Your task to perform on an android device: Go to wifi settings Image 0: 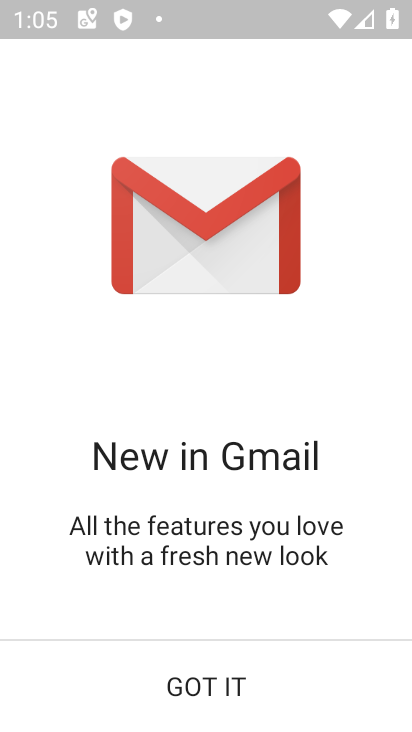
Step 0: click (227, 676)
Your task to perform on an android device: Go to wifi settings Image 1: 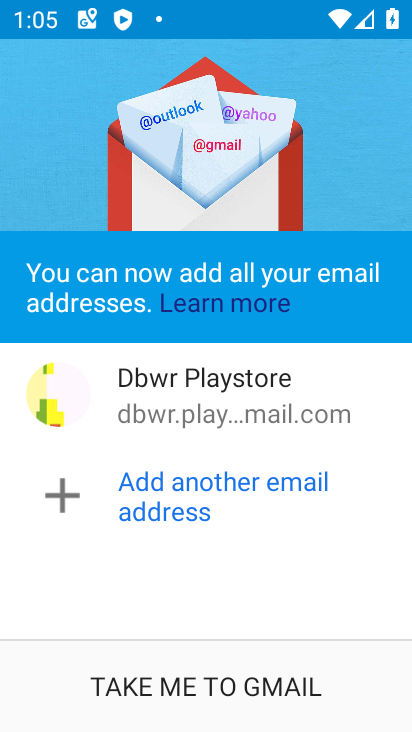
Step 1: click (228, 677)
Your task to perform on an android device: Go to wifi settings Image 2: 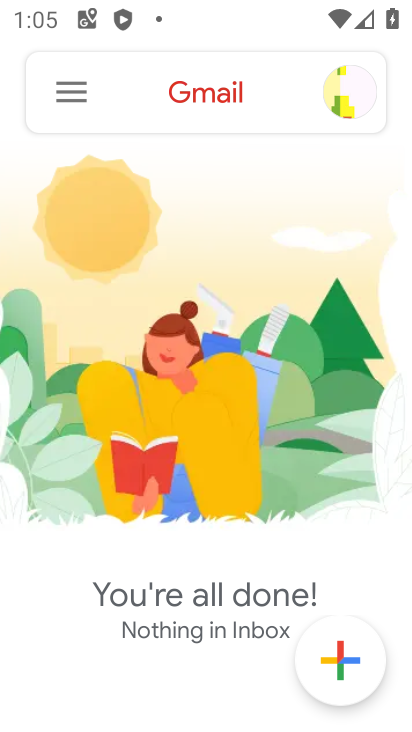
Step 2: press home button
Your task to perform on an android device: Go to wifi settings Image 3: 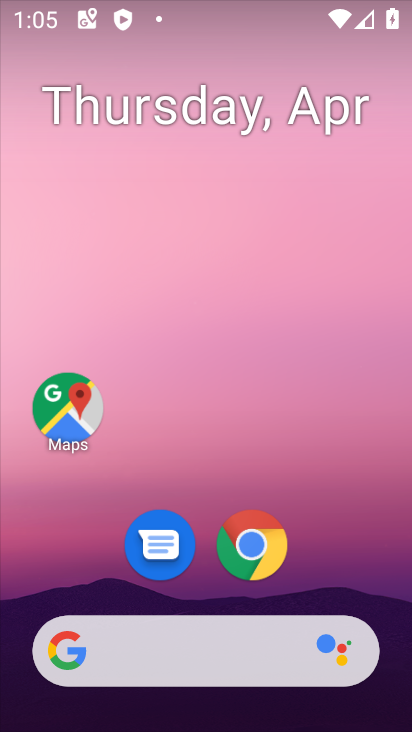
Step 3: drag from (196, 633) to (279, 119)
Your task to perform on an android device: Go to wifi settings Image 4: 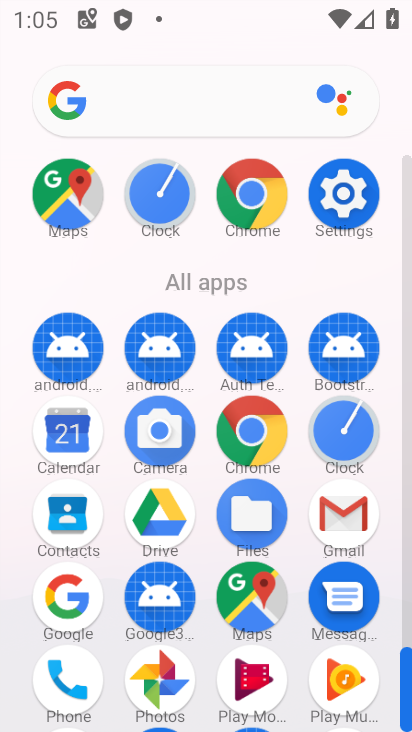
Step 4: click (348, 200)
Your task to perform on an android device: Go to wifi settings Image 5: 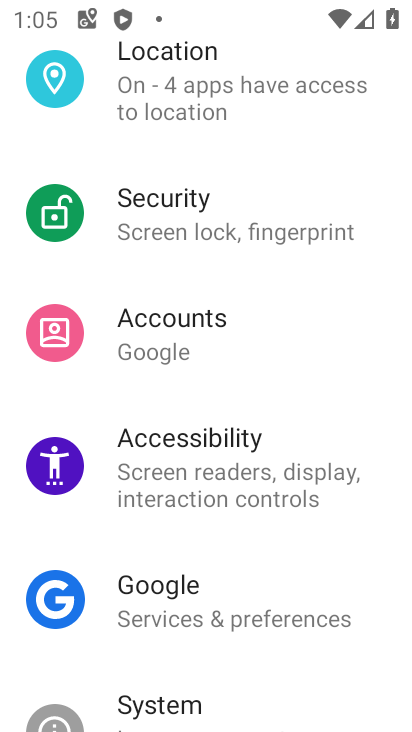
Step 5: drag from (283, 115) to (275, 585)
Your task to perform on an android device: Go to wifi settings Image 6: 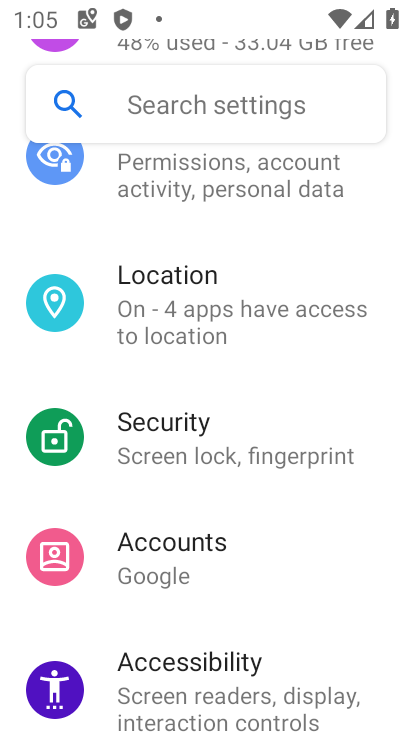
Step 6: drag from (258, 205) to (268, 632)
Your task to perform on an android device: Go to wifi settings Image 7: 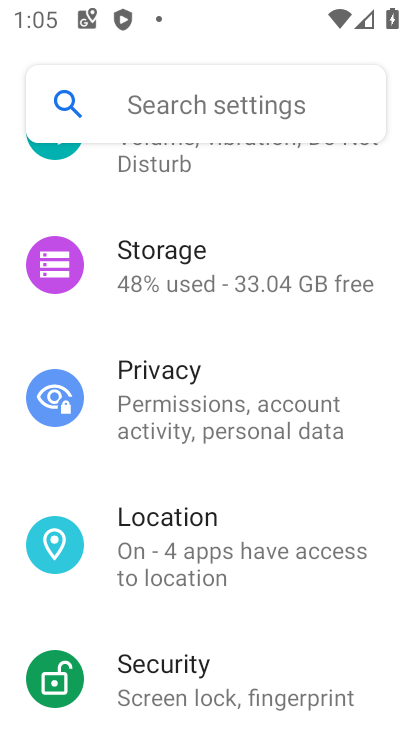
Step 7: drag from (267, 219) to (276, 658)
Your task to perform on an android device: Go to wifi settings Image 8: 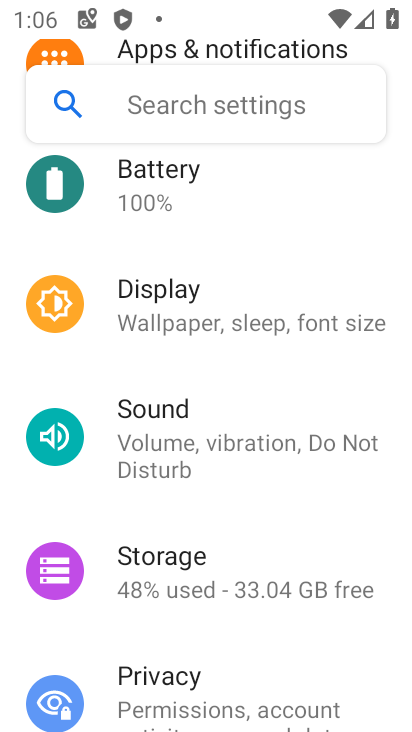
Step 8: drag from (255, 175) to (298, 626)
Your task to perform on an android device: Go to wifi settings Image 9: 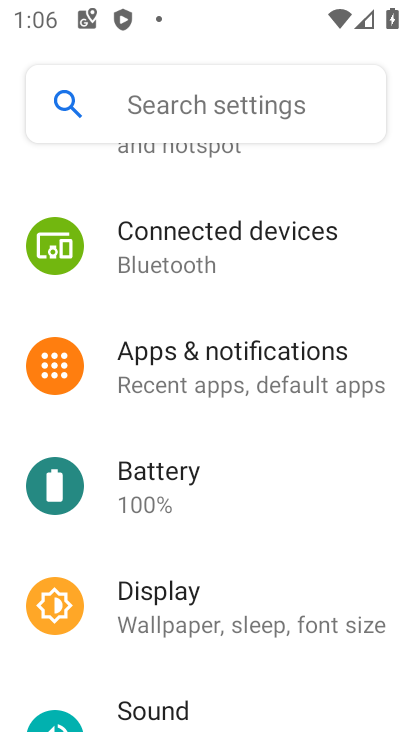
Step 9: drag from (304, 210) to (348, 616)
Your task to perform on an android device: Go to wifi settings Image 10: 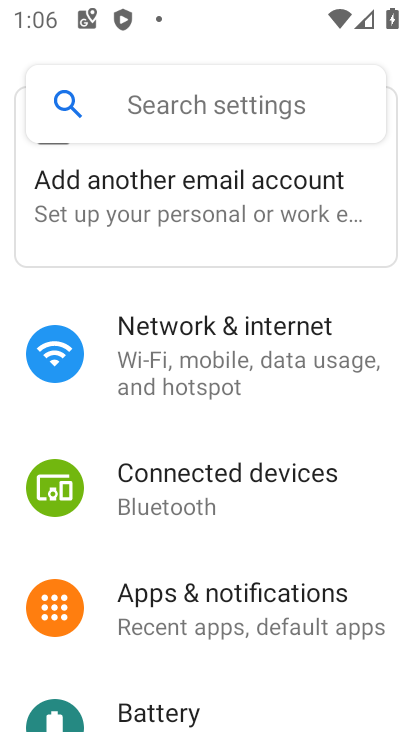
Step 10: click (241, 336)
Your task to perform on an android device: Go to wifi settings Image 11: 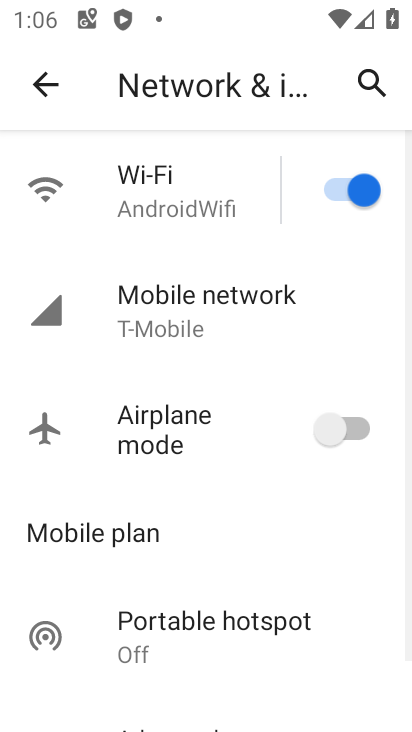
Step 11: click (205, 193)
Your task to perform on an android device: Go to wifi settings Image 12: 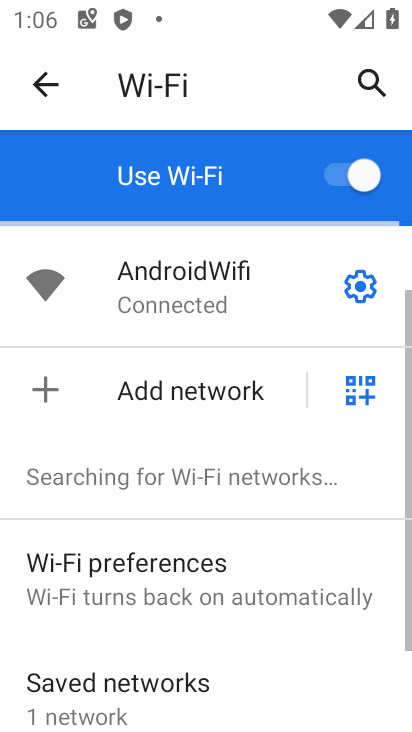
Step 12: task complete